Your task to perform on an android device: Open the calendar app, open the side menu, and click the "Day" option Image 0: 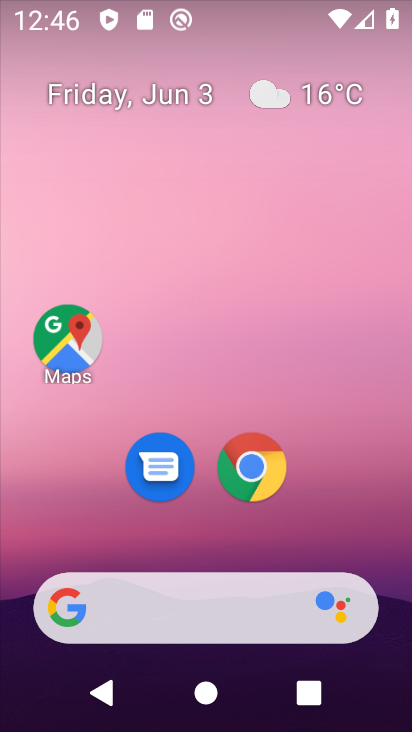
Step 0: drag from (122, 579) to (277, 9)
Your task to perform on an android device: Open the calendar app, open the side menu, and click the "Day" option Image 1: 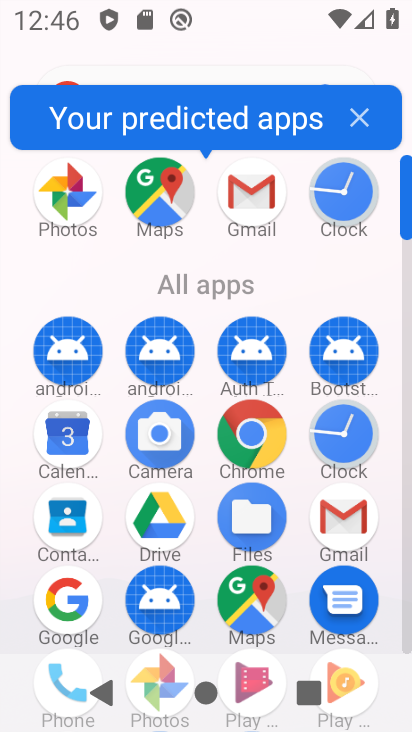
Step 1: click (54, 446)
Your task to perform on an android device: Open the calendar app, open the side menu, and click the "Day" option Image 2: 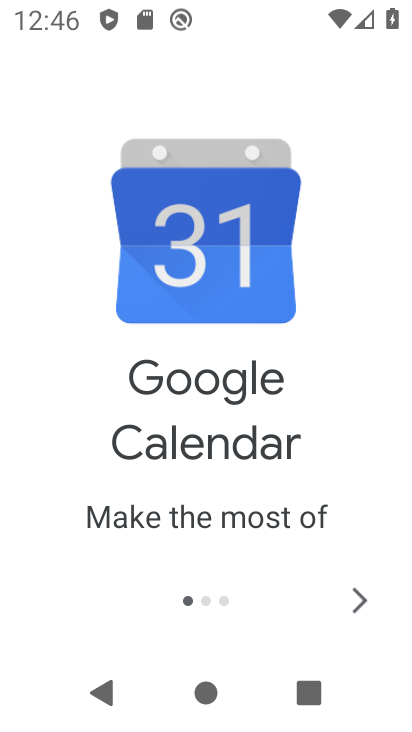
Step 2: click (351, 617)
Your task to perform on an android device: Open the calendar app, open the side menu, and click the "Day" option Image 3: 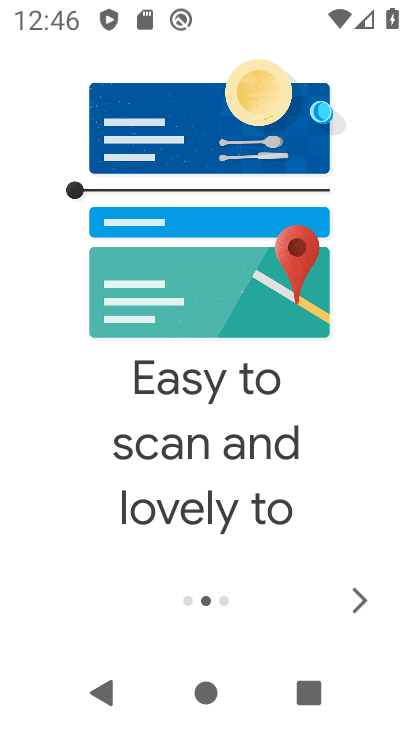
Step 3: click (352, 610)
Your task to perform on an android device: Open the calendar app, open the side menu, and click the "Day" option Image 4: 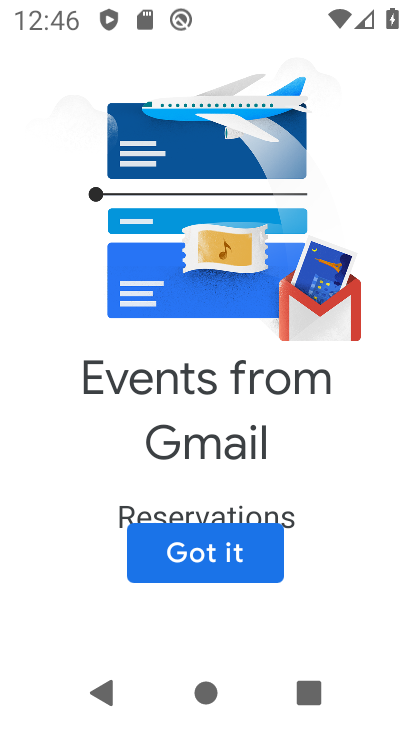
Step 4: click (228, 554)
Your task to perform on an android device: Open the calendar app, open the side menu, and click the "Day" option Image 5: 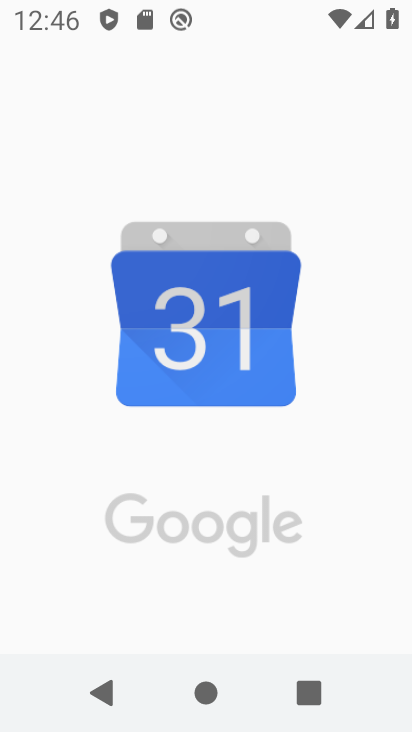
Step 5: click (218, 579)
Your task to perform on an android device: Open the calendar app, open the side menu, and click the "Day" option Image 6: 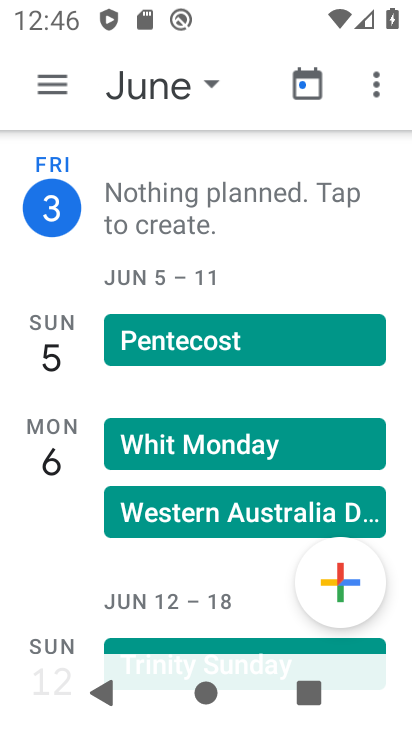
Step 6: click (83, 88)
Your task to perform on an android device: Open the calendar app, open the side menu, and click the "Day" option Image 7: 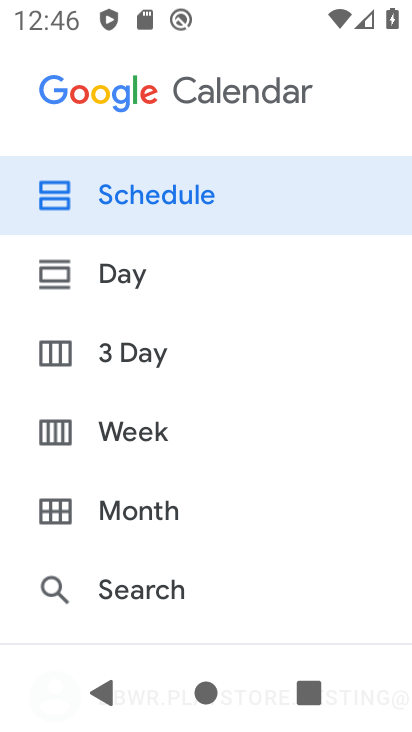
Step 7: click (158, 304)
Your task to perform on an android device: Open the calendar app, open the side menu, and click the "Day" option Image 8: 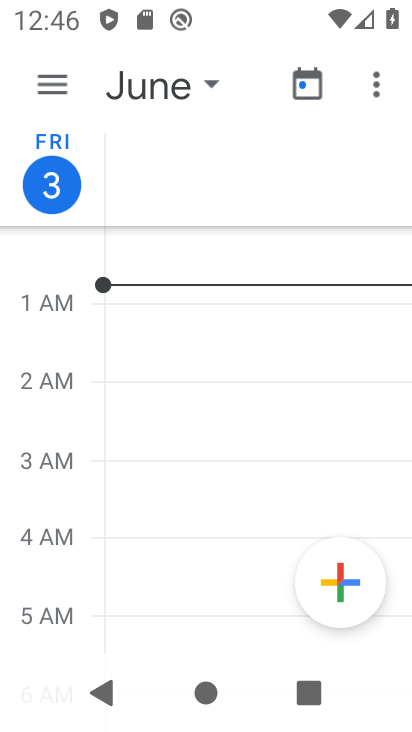
Step 8: task complete